Your task to perform on an android device: Open Amazon Image 0: 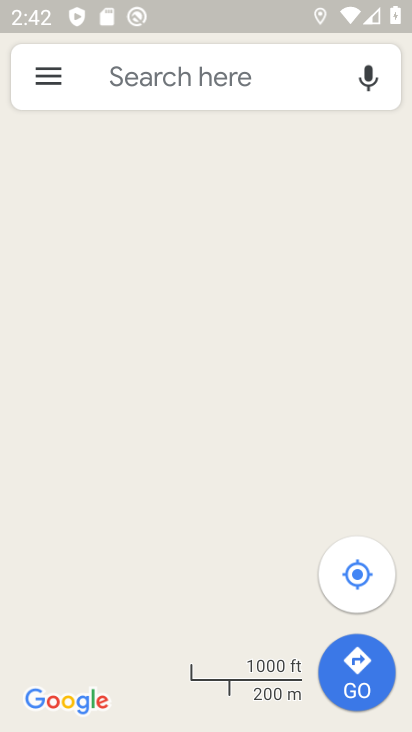
Step 0: press home button
Your task to perform on an android device: Open Amazon Image 1: 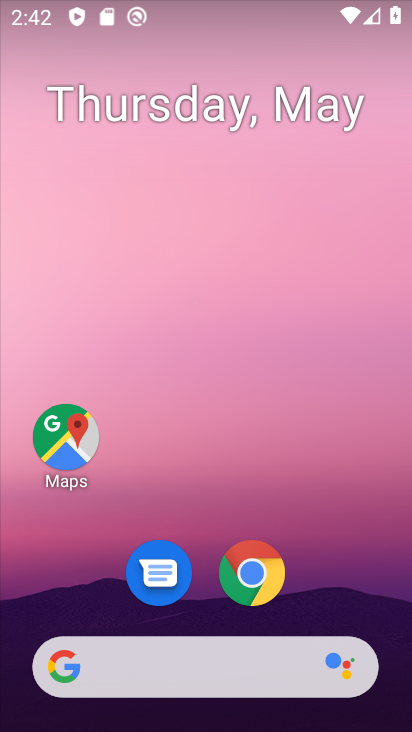
Step 1: click (254, 577)
Your task to perform on an android device: Open Amazon Image 2: 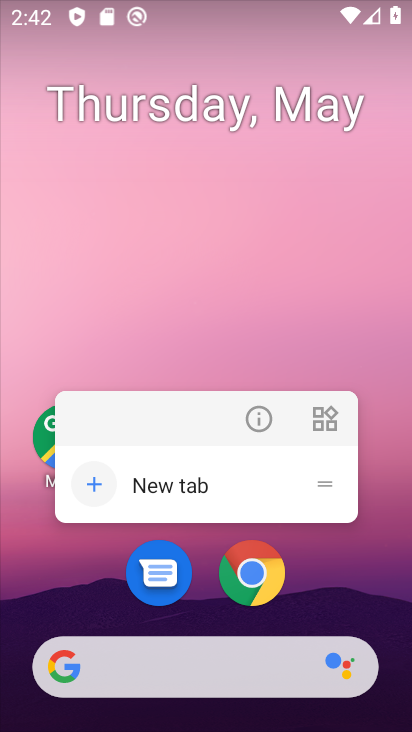
Step 2: click (254, 577)
Your task to perform on an android device: Open Amazon Image 3: 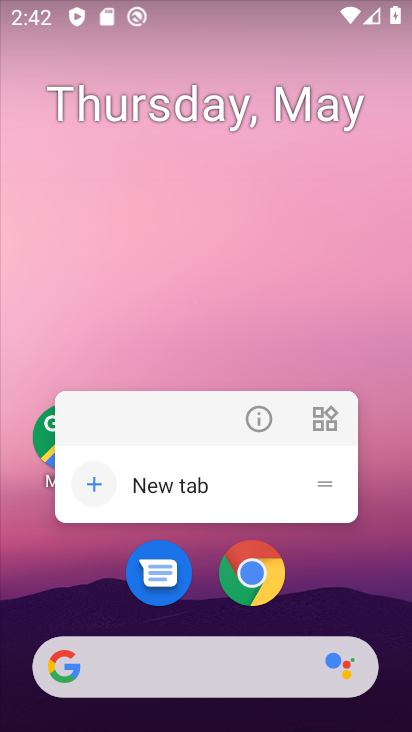
Step 3: click (252, 587)
Your task to perform on an android device: Open Amazon Image 4: 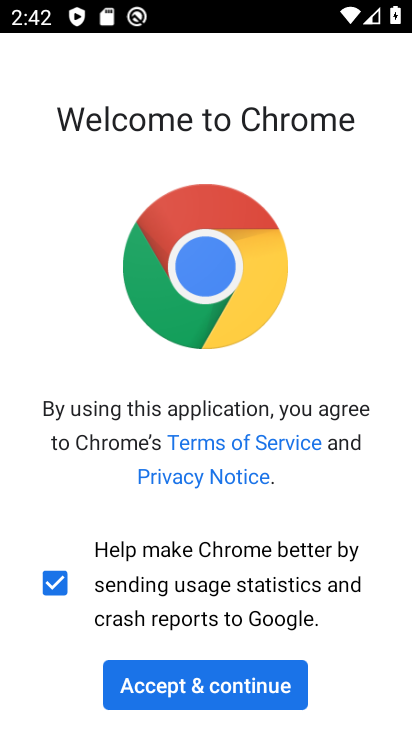
Step 4: click (230, 702)
Your task to perform on an android device: Open Amazon Image 5: 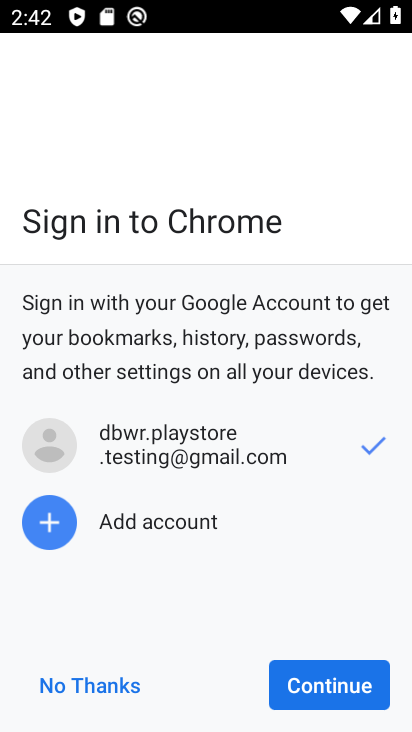
Step 5: click (319, 688)
Your task to perform on an android device: Open Amazon Image 6: 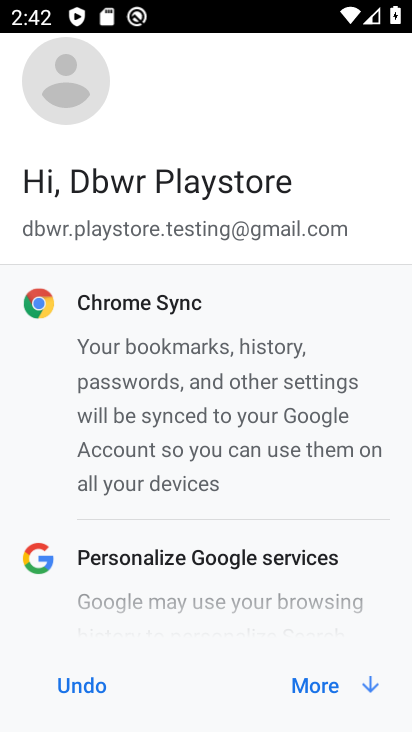
Step 6: click (303, 672)
Your task to perform on an android device: Open Amazon Image 7: 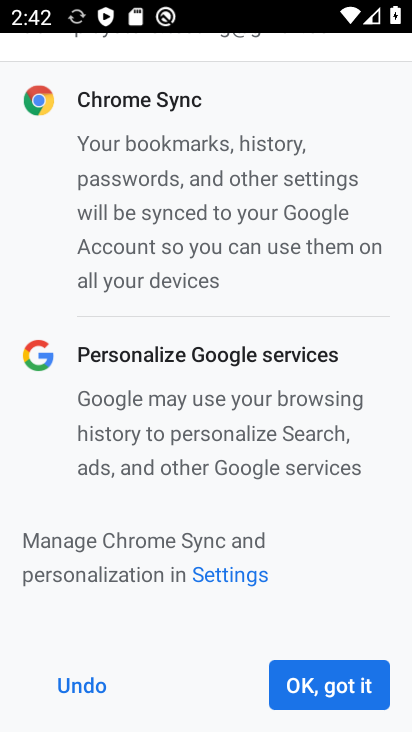
Step 7: click (405, 713)
Your task to perform on an android device: Open Amazon Image 8: 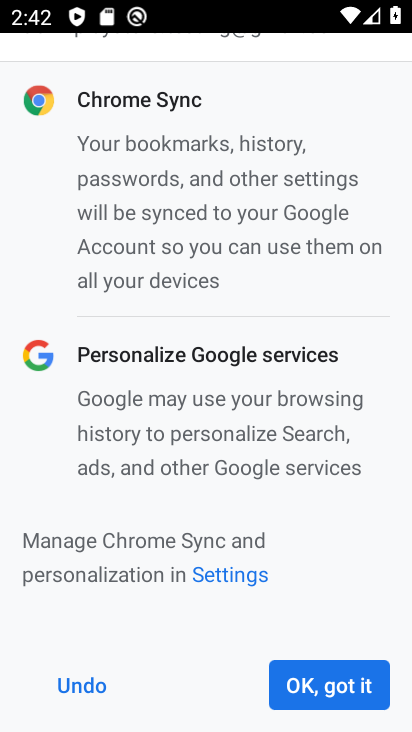
Step 8: click (377, 692)
Your task to perform on an android device: Open Amazon Image 9: 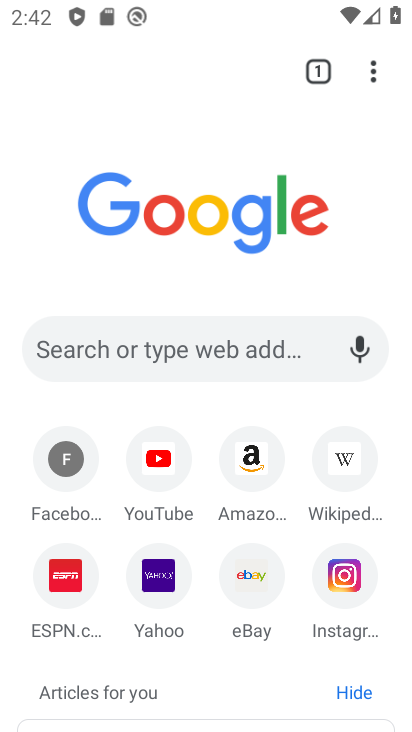
Step 9: click (260, 468)
Your task to perform on an android device: Open Amazon Image 10: 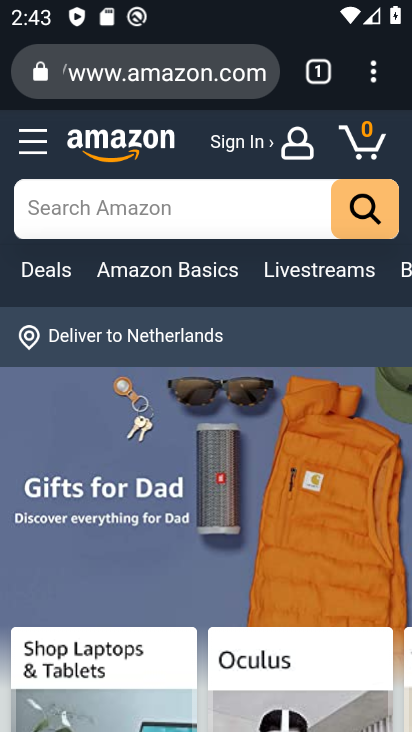
Step 10: task complete